Your task to perform on an android device: Open Google Maps and go to "Timeline" Image 0: 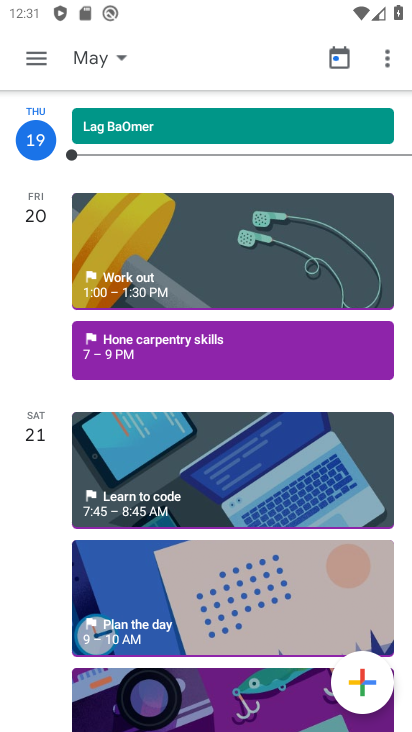
Step 0: press home button
Your task to perform on an android device: Open Google Maps and go to "Timeline" Image 1: 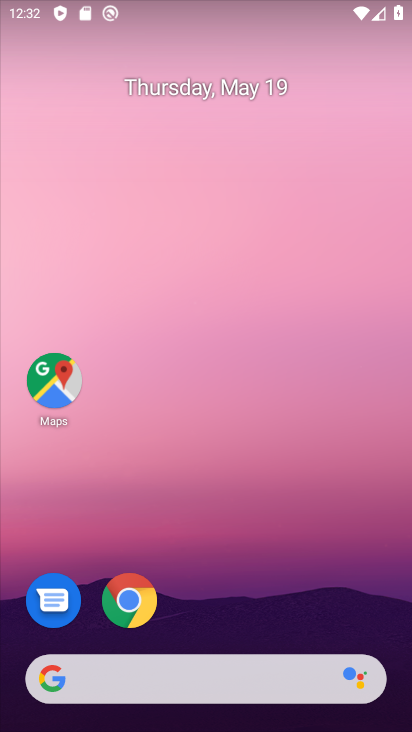
Step 1: click (49, 417)
Your task to perform on an android device: Open Google Maps and go to "Timeline" Image 2: 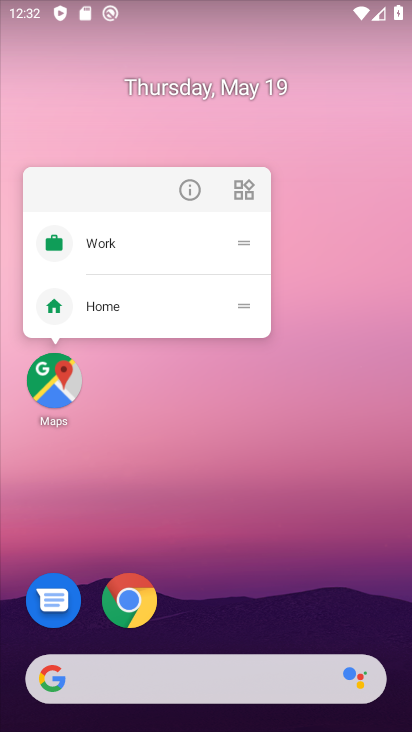
Step 2: click (49, 417)
Your task to perform on an android device: Open Google Maps and go to "Timeline" Image 3: 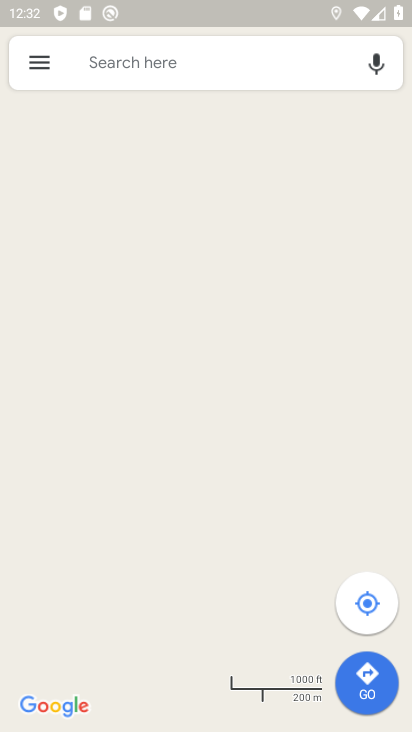
Step 3: click (45, 411)
Your task to perform on an android device: Open Google Maps and go to "Timeline" Image 4: 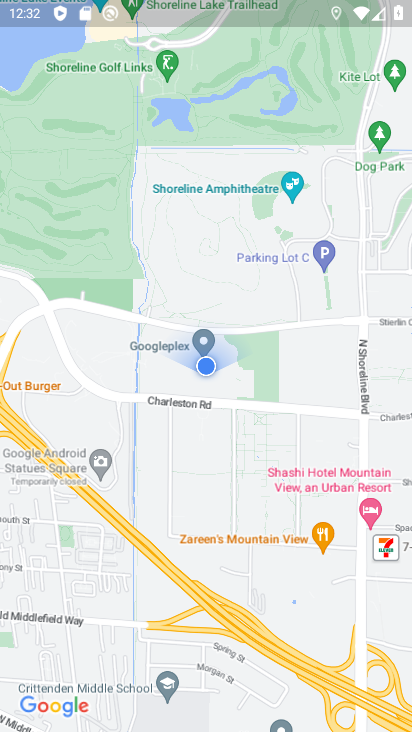
Step 4: task complete